Your task to perform on an android device: turn off notifications settings in the gmail app Image 0: 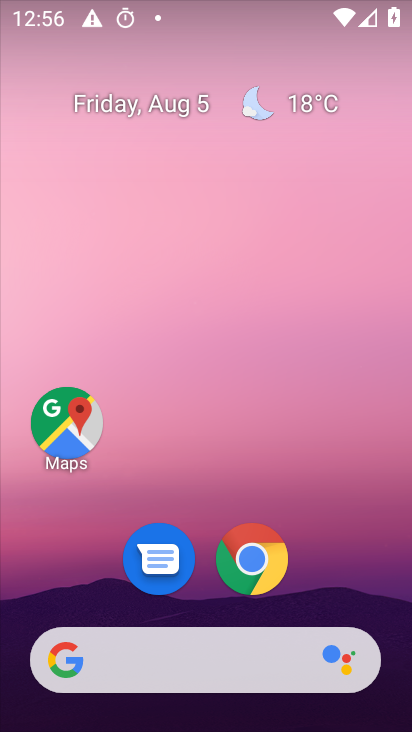
Step 0: drag from (30, 682) to (236, 44)
Your task to perform on an android device: turn off notifications settings in the gmail app Image 1: 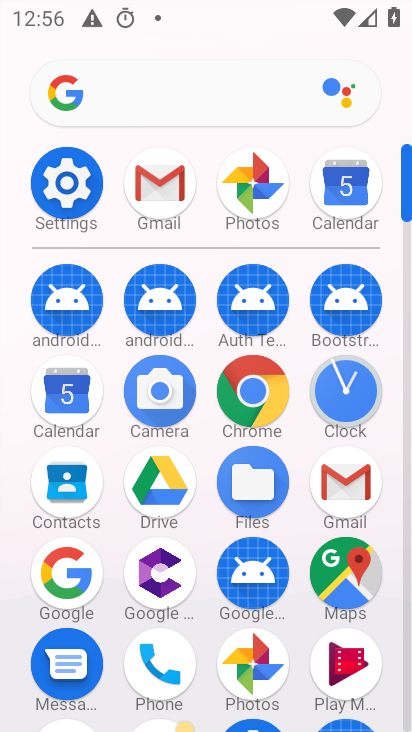
Step 1: click (142, 183)
Your task to perform on an android device: turn off notifications settings in the gmail app Image 2: 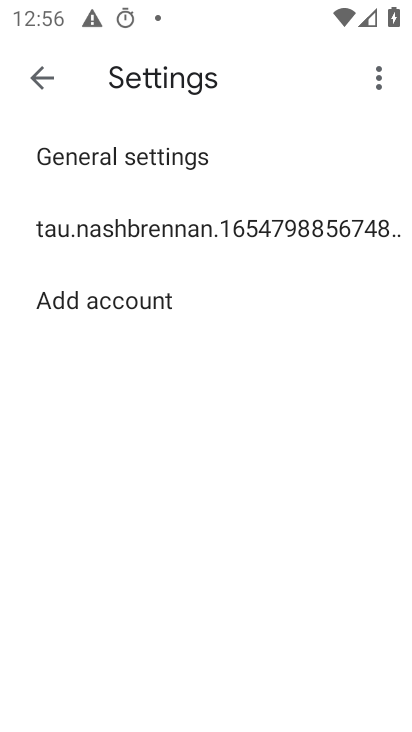
Step 2: click (104, 226)
Your task to perform on an android device: turn off notifications settings in the gmail app Image 3: 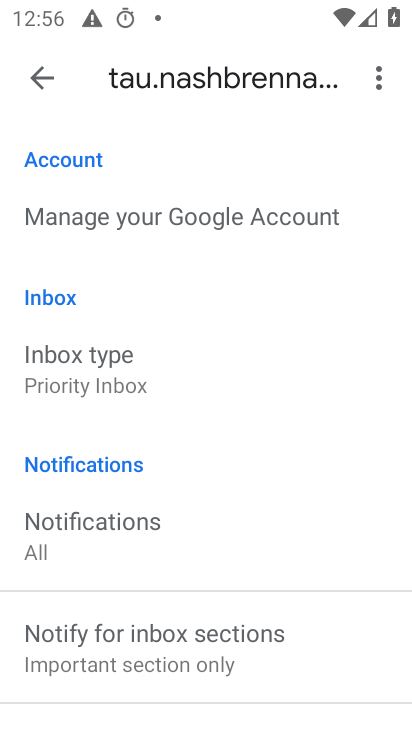
Step 3: click (77, 530)
Your task to perform on an android device: turn off notifications settings in the gmail app Image 4: 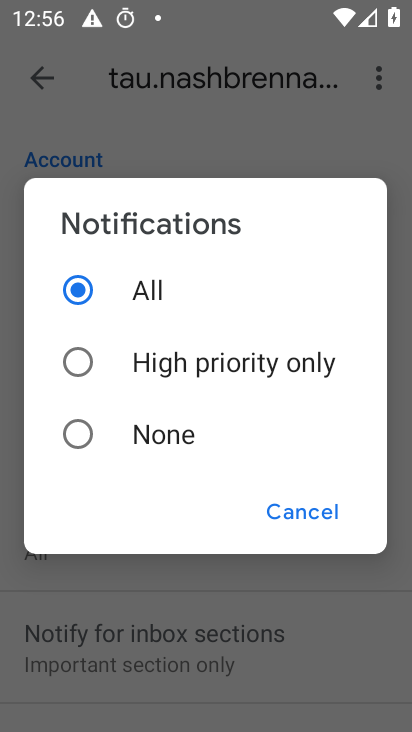
Step 4: task complete